Your task to perform on an android device: Open accessibility settings Image 0: 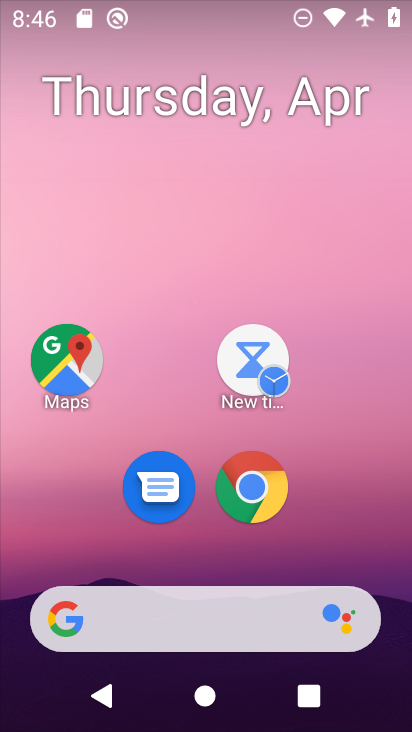
Step 0: drag from (331, 392) to (299, 47)
Your task to perform on an android device: Open accessibility settings Image 1: 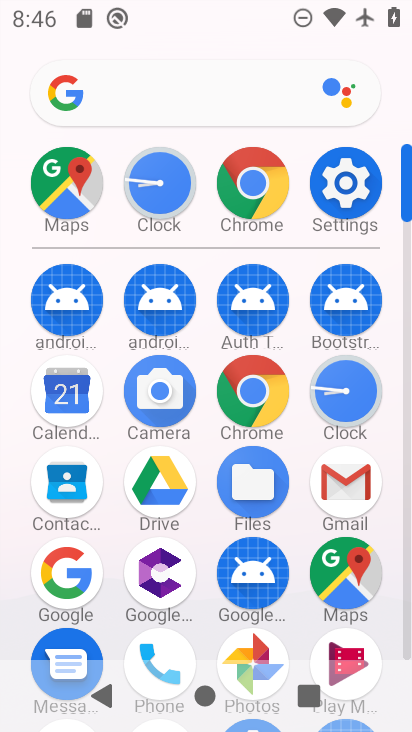
Step 1: click (346, 186)
Your task to perform on an android device: Open accessibility settings Image 2: 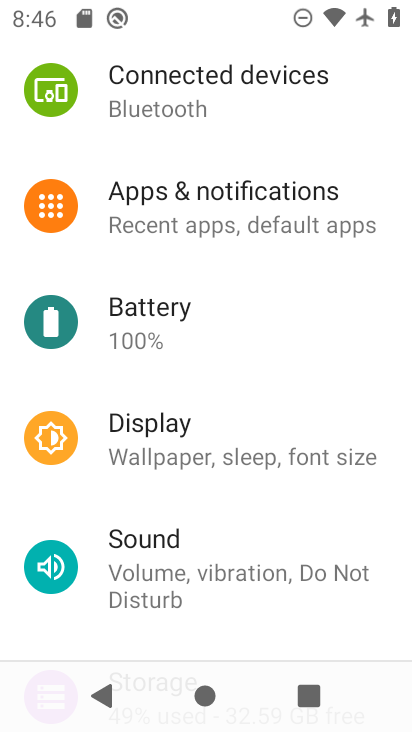
Step 2: drag from (258, 615) to (287, 204)
Your task to perform on an android device: Open accessibility settings Image 3: 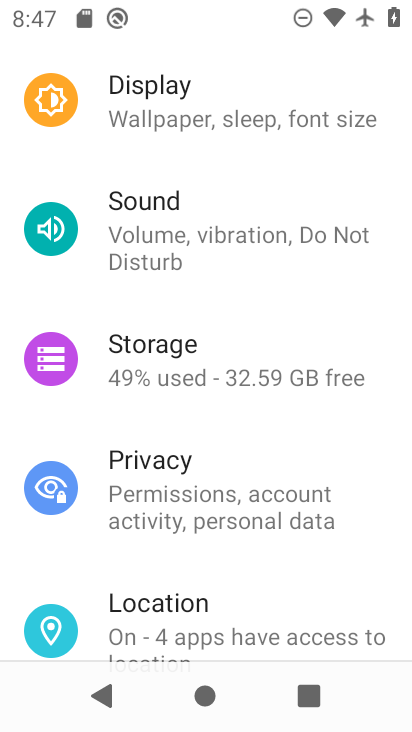
Step 3: drag from (190, 613) to (228, 183)
Your task to perform on an android device: Open accessibility settings Image 4: 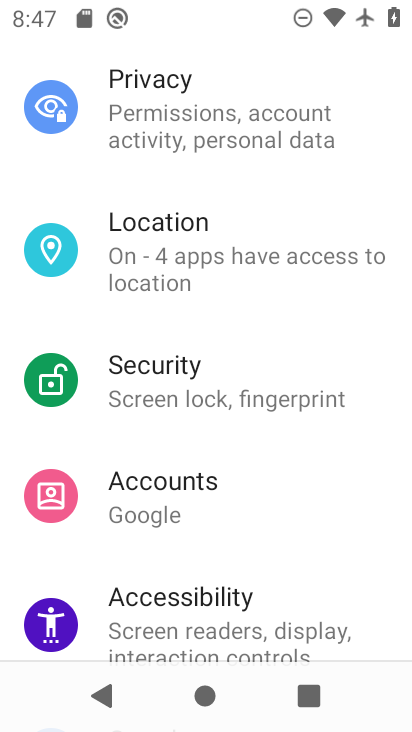
Step 4: click (216, 615)
Your task to perform on an android device: Open accessibility settings Image 5: 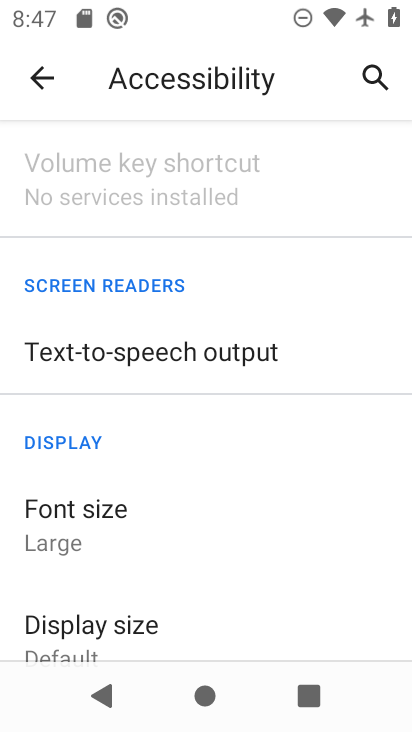
Step 5: task complete